Your task to perform on an android device: turn off priority inbox in the gmail app Image 0: 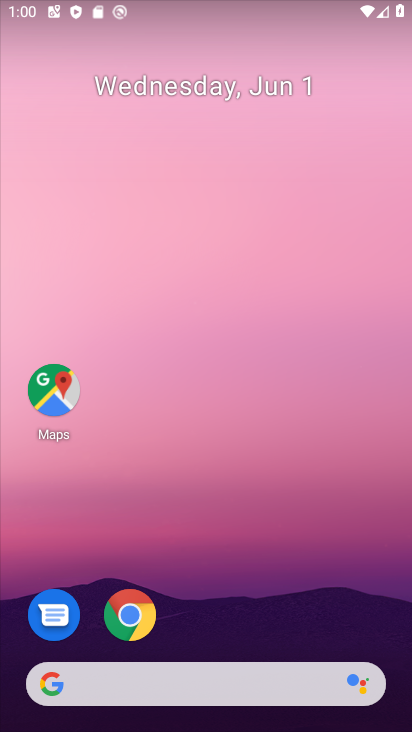
Step 0: task complete